Your task to perform on an android device: Go to Maps Image 0: 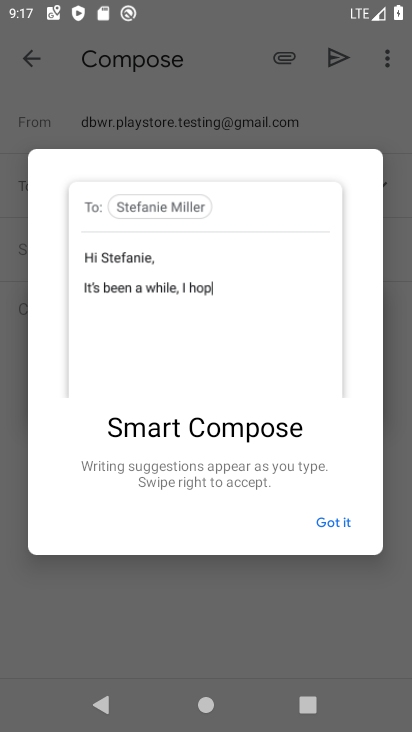
Step 0: press home button
Your task to perform on an android device: Go to Maps Image 1: 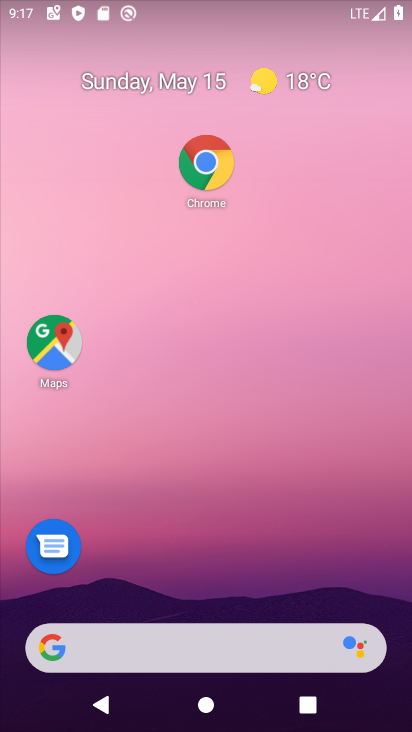
Step 1: drag from (262, 607) to (308, 249)
Your task to perform on an android device: Go to Maps Image 2: 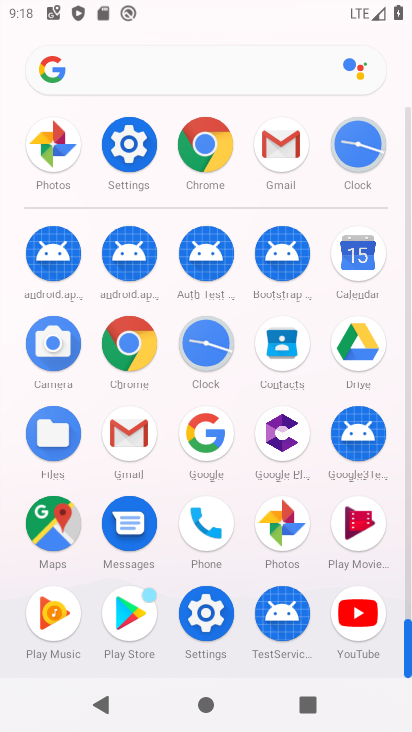
Step 2: click (34, 521)
Your task to perform on an android device: Go to Maps Image 3: 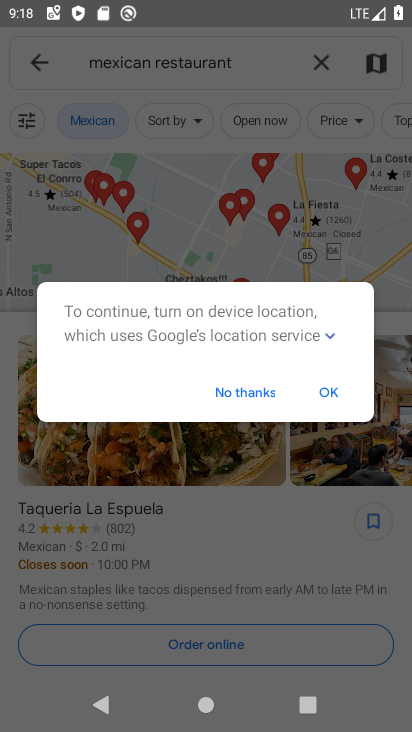
Step 3: task complete